Your task to perform on an android device: delete the emails in spam in the gmail app Image 0: 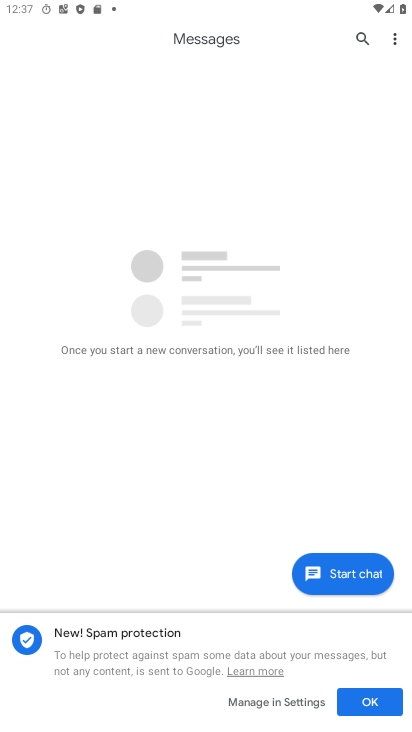
Step 0: press home button
Your task to perform on an android device: delete the emails in spam in the gmail app Image 1: 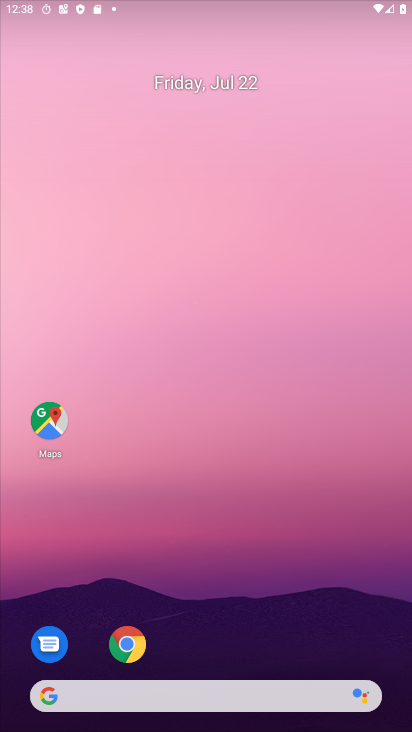
Step 1: drag from (203, 660) to (399, 88)
Your task to perform on an android device: delete the emails in spam in the gmail app Image 2: 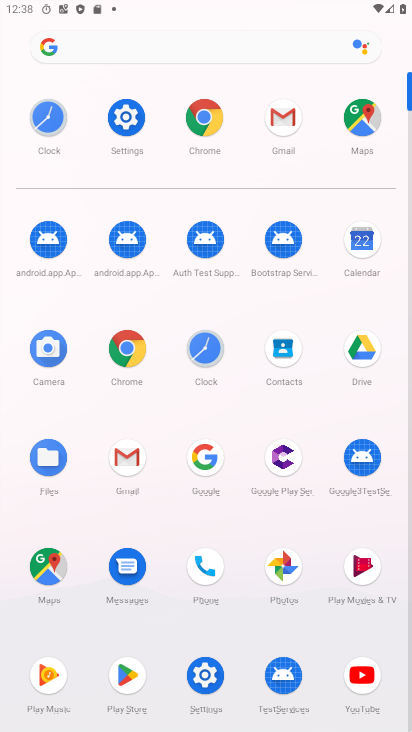
Step 2: drag from (189, 575) to (226, 226)
Your task to perform on an android device: delete the emails in spam in the gmail app Image 3: 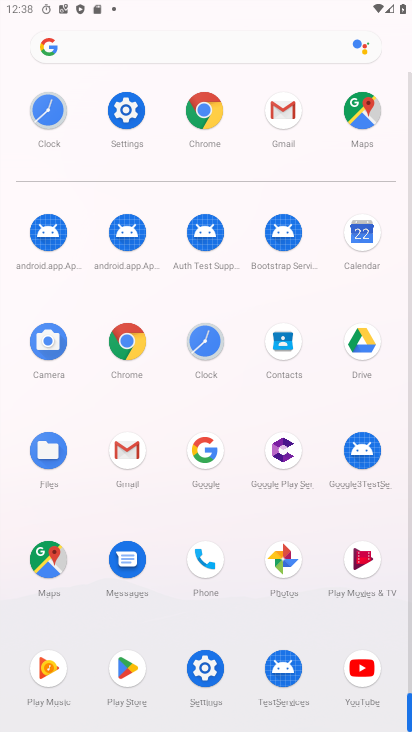
Step 3: click (140, 462)
Your task to perform on an android device: delete the emails in spam in the gmail app Image 4: 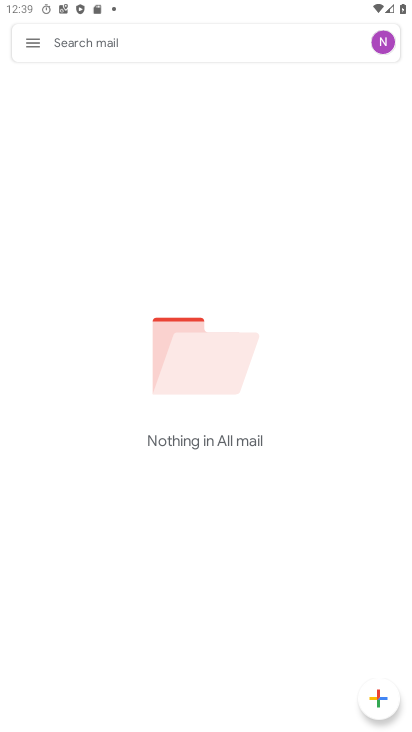
Step 4: click (29, 43)
Your task to perform on an android device: delete the emails in spam in the gmail app Image 5: 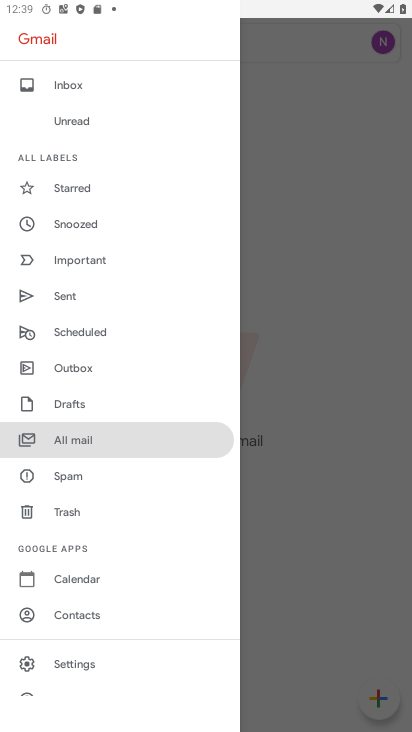
Step 5: click (109, 480)
Your task to perform on an android device: delete the emails in spam in the gmail app Image 6: 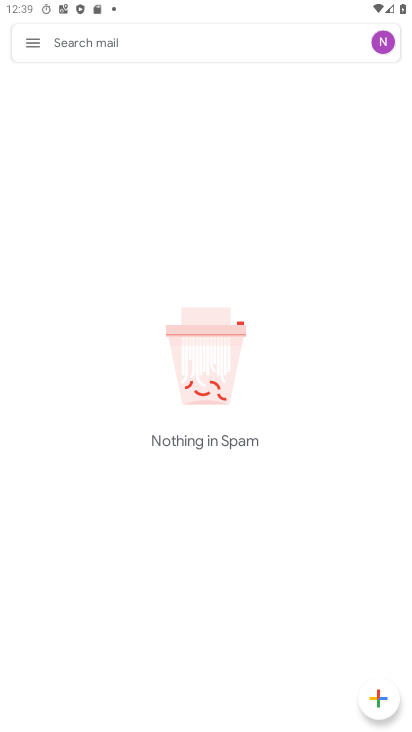
Step 6: task complete